Your task to perform on an android device: Go to CNN.com Image 0: 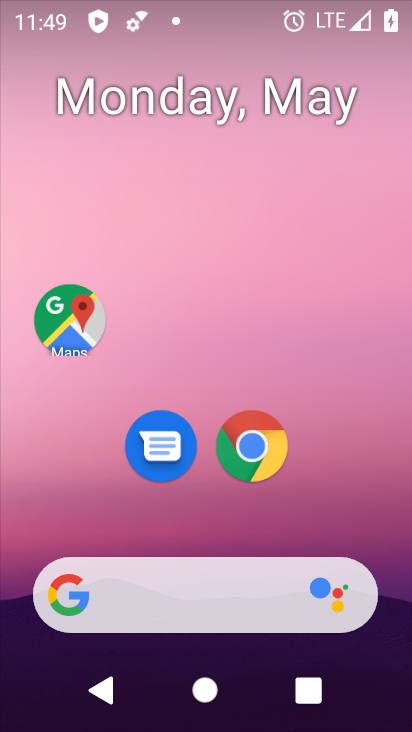
Step 0: click (249, 444)
Your task to perform on an android device: Go to CNN.com Image 1: 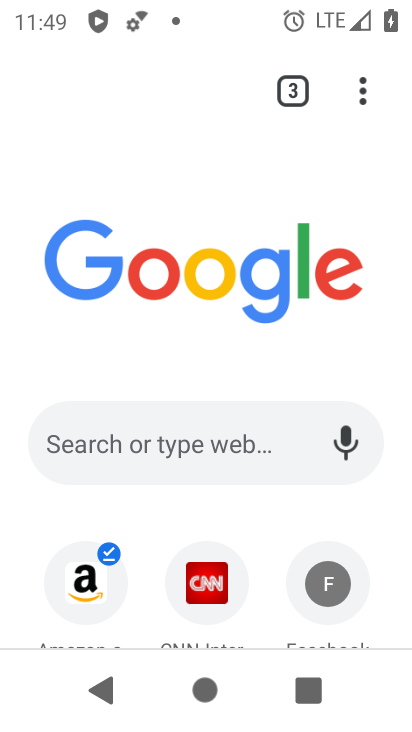
Step 1: click (195, 432)
Your task to perform on an android device: Go to CNN.com Image 2: 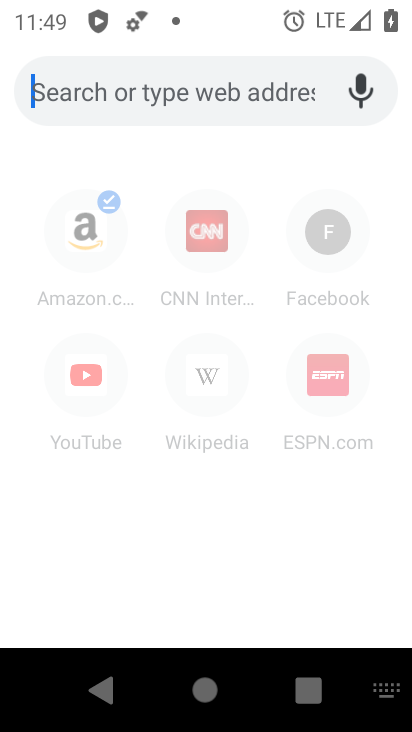
Step 2: type "cnn.com"
Your task to perform on an android device: Go to CNN.com Image 3: 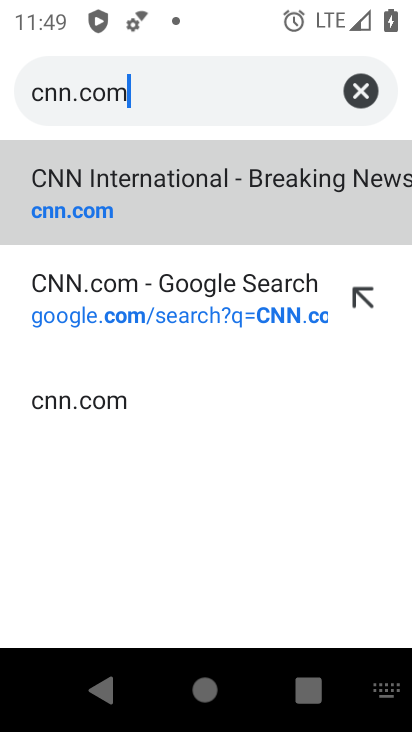
Step 3: click (143, 194)
Your task to perform on an android device: Go to CNN.com Image 4: 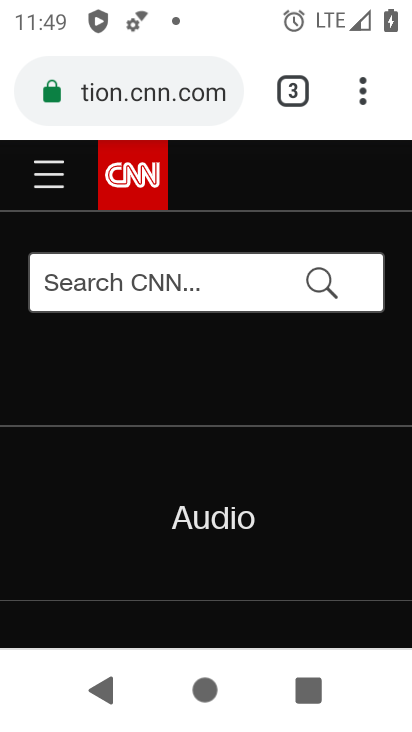
Step 4: task complete